Your task to perform on an android device: turn off picture-in-picture Image 0: 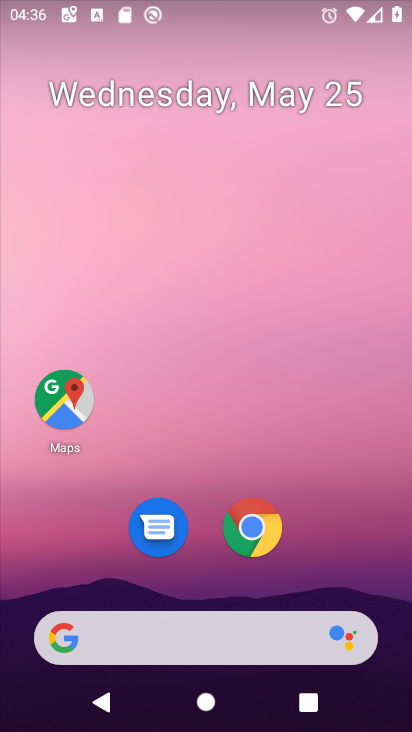
Step 0: drag from (237, 483) to (348, 36)
Your task to perform on an android device: turn off picture-in-picture Image 1: 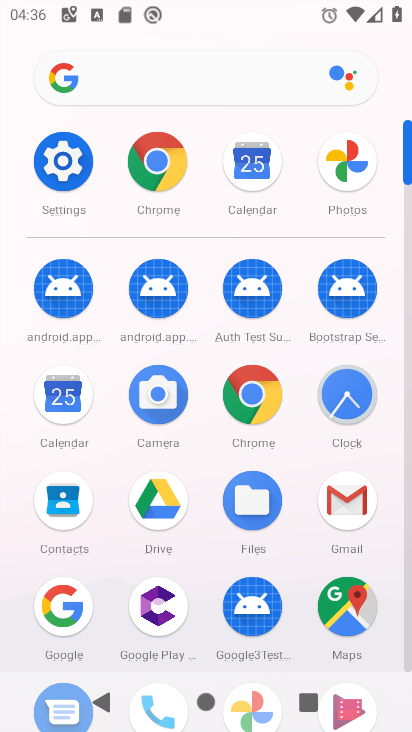
Step 1: click (79, 172)
Your task to perform on an android device: turn off picture-in-picture Image 2: 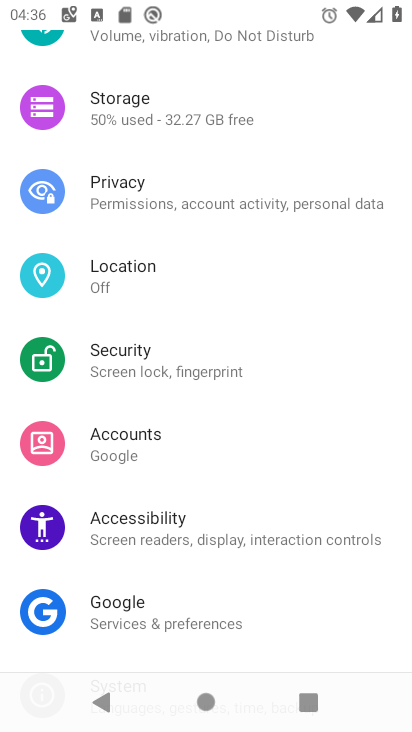
Step 2: drag from (293, 442) to (253, 155)
Your task to perform on an android device: turn off picture-in-picture Image 3: 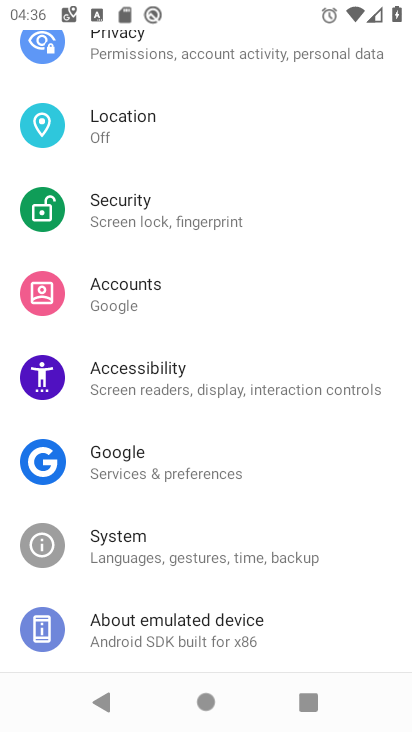
Step 3: drag from (285, 242) to (284, 549)
Your task to perform on an android device: turn off picture-in-picture Image 4: 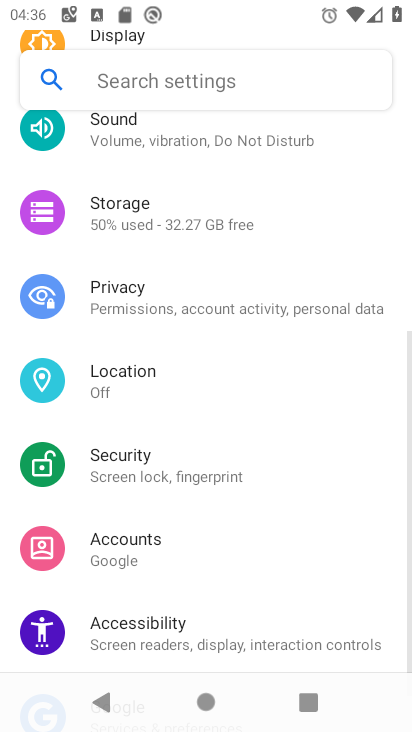
Step 4: drag from (305, 248) to (289, 456)
Your task to perform on an android device: turn off picture-in-picture Image 5: 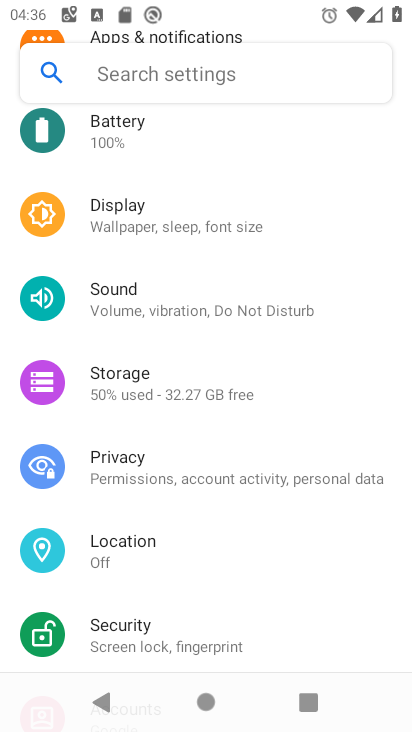
Step 5: drag from (263, 188) to (218, 473)
Your task to perform on an android device: turn off picture-in-picture Image 6: 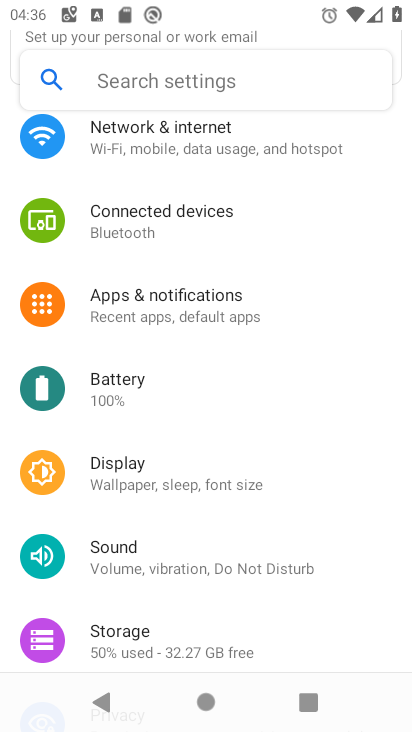
Step 6: click (229, 291)
Your task to perform on an android device: turn off picture-in-picture Image 7: 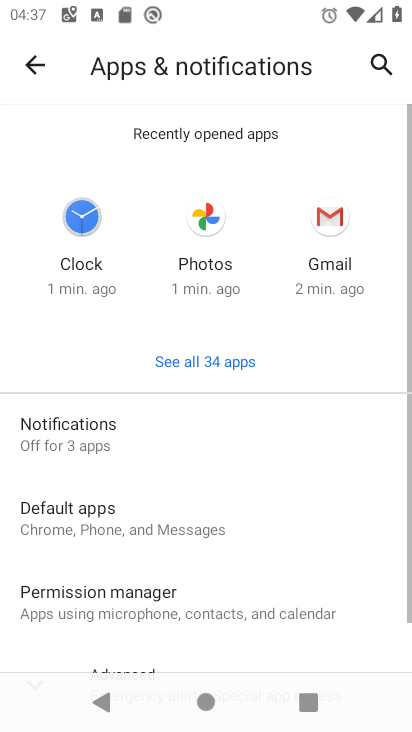
Step 7: drag from (274, 508) to (266, 162)
Your task to perform on an android device: turn off picture-in-picture Image 8: 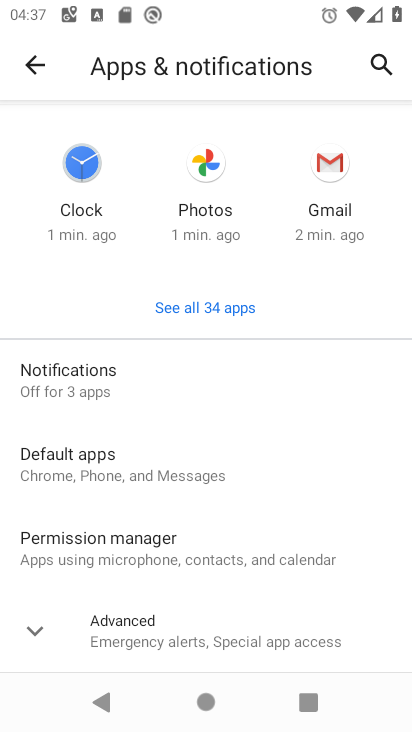
Step 8: click (199, 647)
Your task to perform on an android device: turn off picture-in-picture Image 9: 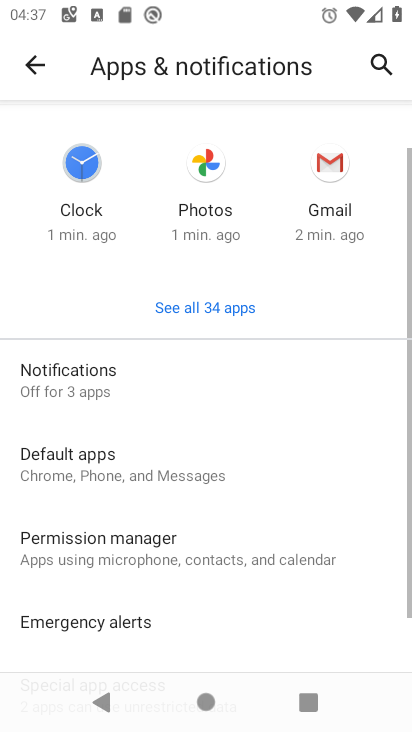
Step 9: drag from (249, 538) to (237, 169)
Your task to perform on an android device: turn off picture-in-picture Image 10: 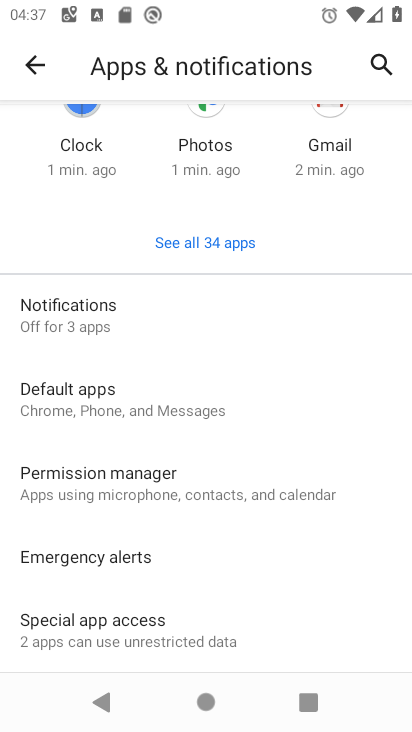
Step 10: click (121, 622)
Your task to perform on an android device: turn off picture-in-picture Image 11: 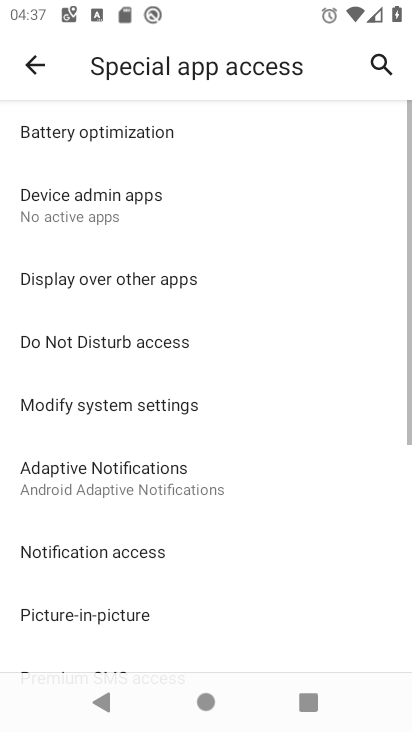
Step 11: click (120, 618)
Your task to perform on an android device: turn off picture-in-picture Image 12: 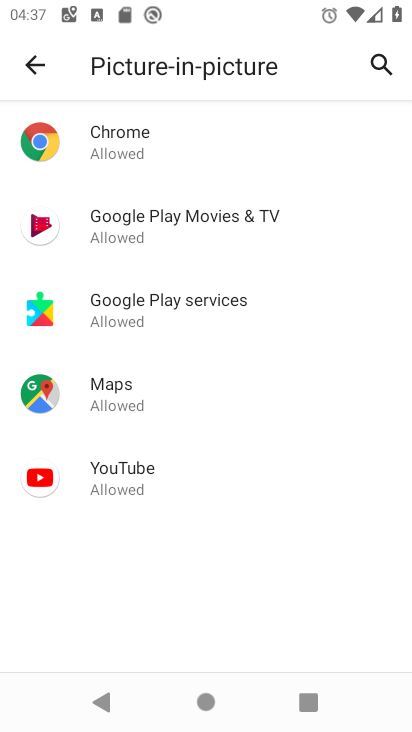
Step 12: click (185, 143)
Your task to perform on an android device: turn off picture-in-picture Image 13: 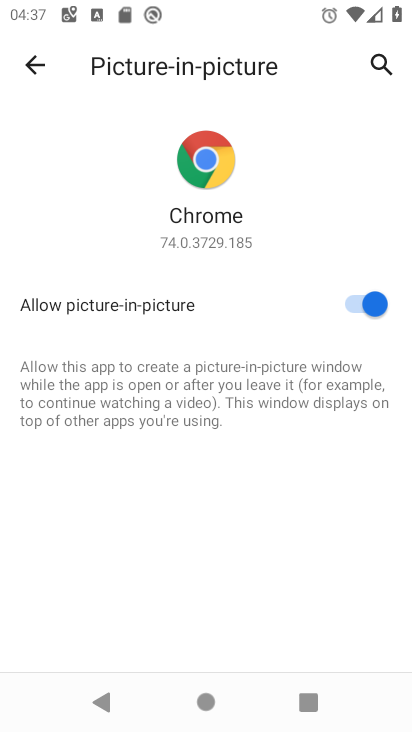
Step 13: click (371, 309)
Your task to perform on an android device: turn off picture-in-picture Image 14: 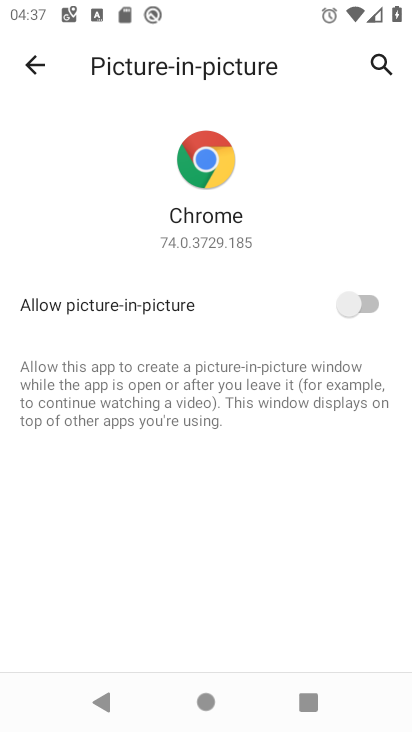
Step 14: press back button
Your task to perform on an android device: turn off picture-in-picture Image 15: 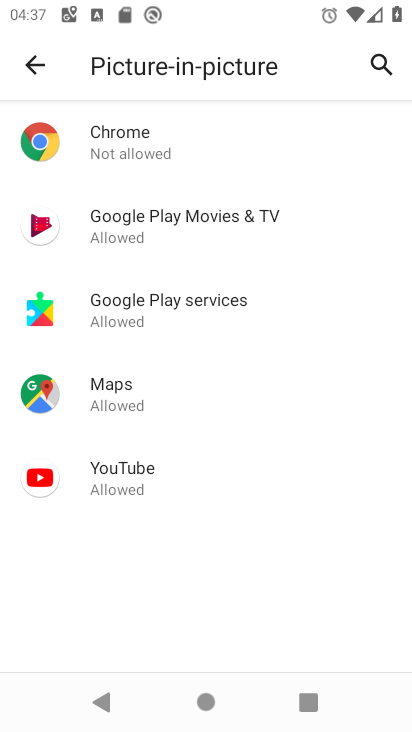
Step 15: click (317, 221)
Your task to perform on an android device: turn off picture-in-picture Image 16: 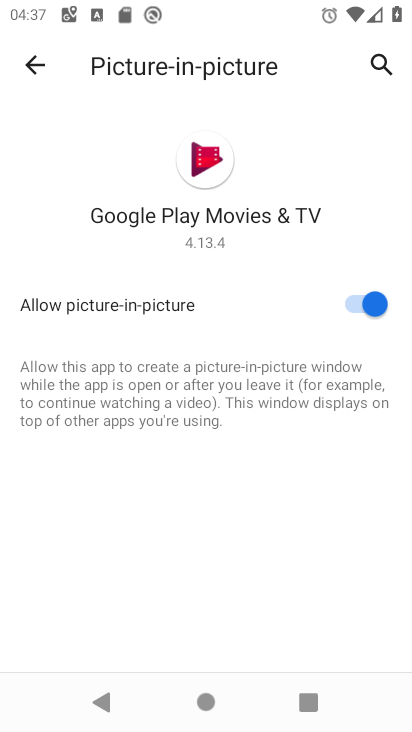
Step 16: click (372, 302)
Your task to perform on an android device: turn off picture-in-picture Image 17: 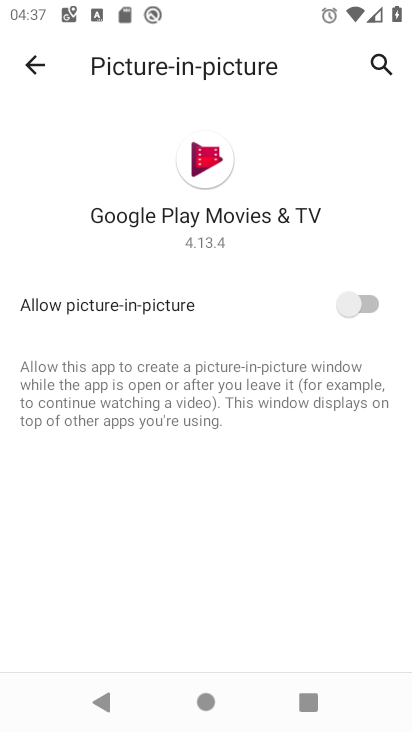
Step 17: press back button
Your task to perform on an android device: turn off picture-in-picture Image 18: 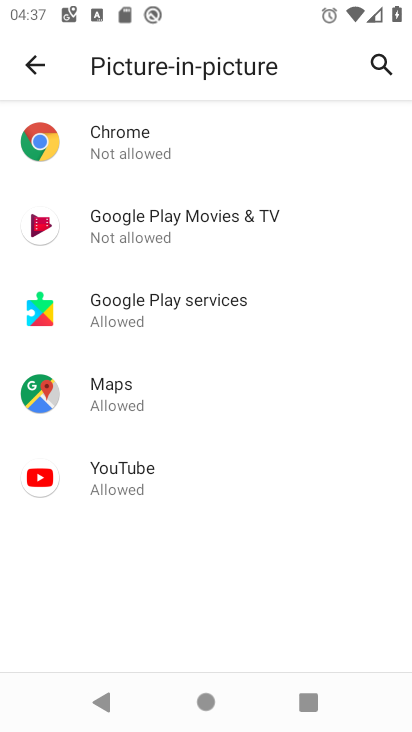
Step 18: click (320, 321)
Your task to perform on an android device: turn off picture-in-picture Image 19: 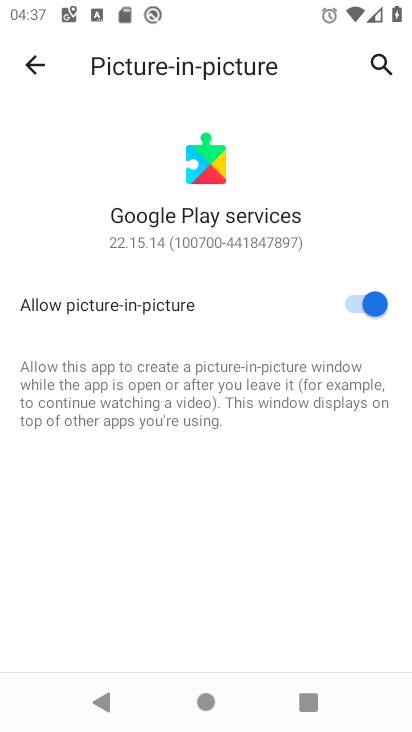
Step 19: click (375, 296)
Your task to perform on an android device: turn off picture-in-picture Image 20: 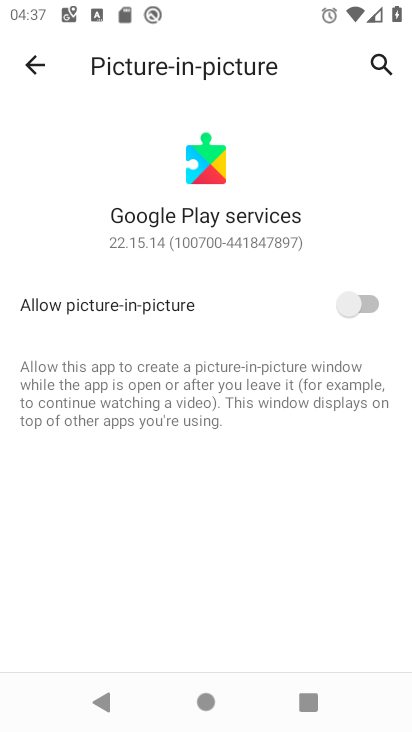
Step 20: press back button
Your task to perform on an android device: turn off picture-in-picture Image 21: 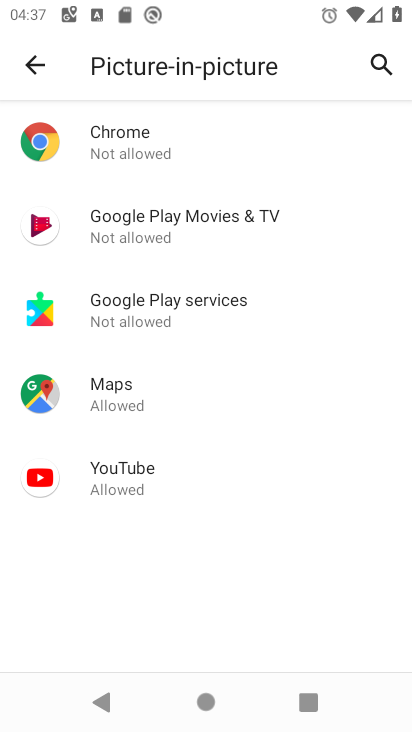
Step 21: click (148, 392)
Your task to perform on an android device: turn off picture-in-picture Image 22: 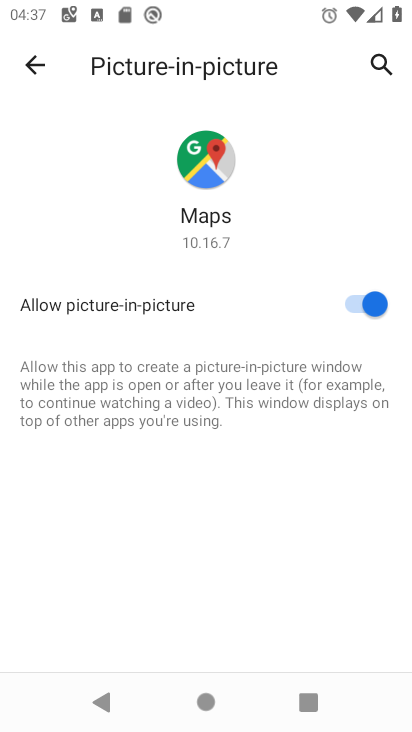
Step 22: click (377, 301)
Your task to perform on an android device: turn off picture-in-picture Image 23: 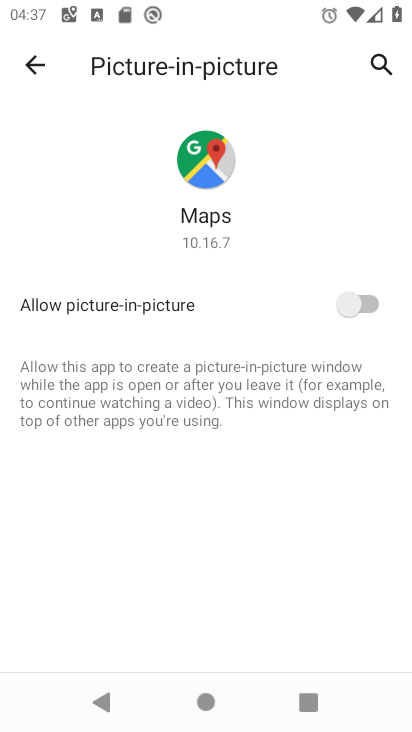
Step 23: press back button
Your task to perform on an android device: turn off picture-in-picture Image 24: 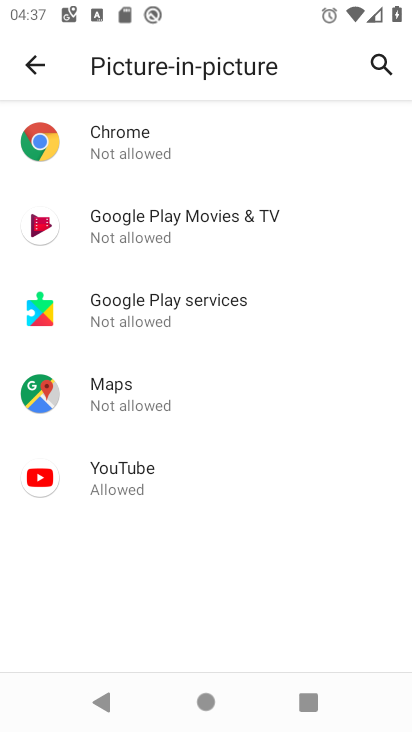
Step 24: click (161, 476)
Your task to perform on an android device: turn off picture-in-picture Image 25: 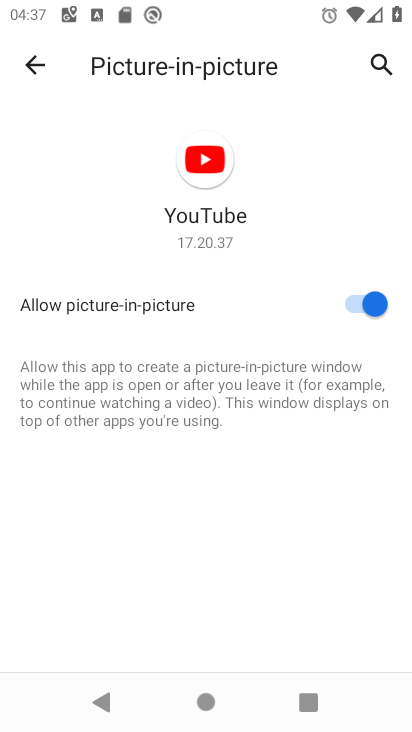
Step 25: click (373, 305)
Your task to perform on an android device: turn off picture-in-picture Image 26: 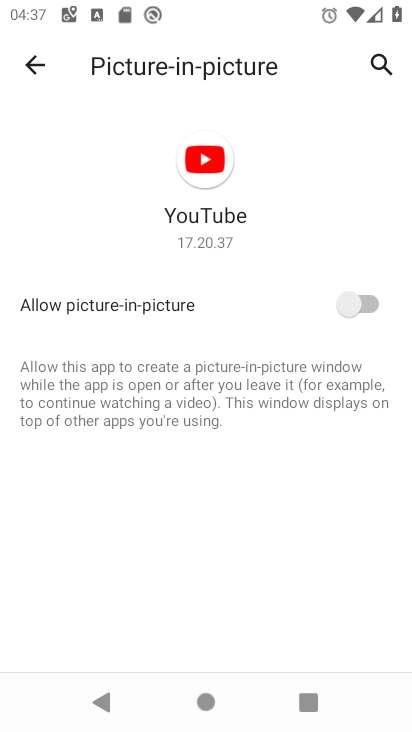
Step 26: task complete